Your task to perform on an android device: add a contact in the contacts app Image 0: 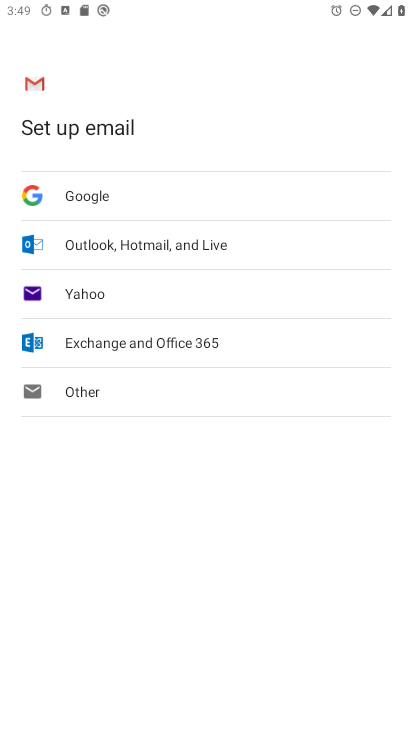
Step 0: press home button
Your task to perform on an android device: add a contact in the contacts app Image 1: 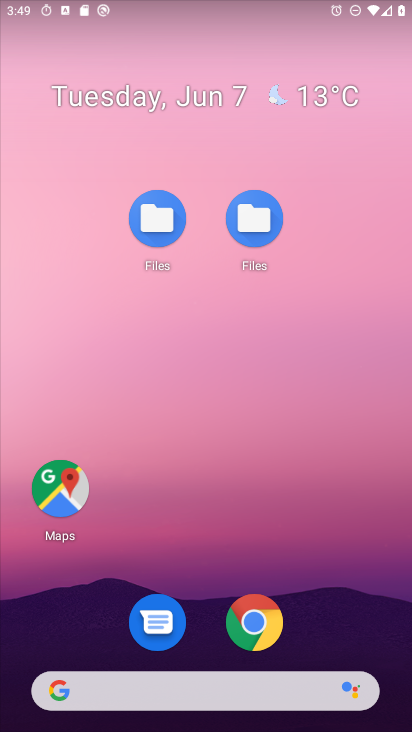
Step 1: drag from (367, 599) to (371, 419)
Your task to perform on an android device: add a contact in the contacts app Image 2: 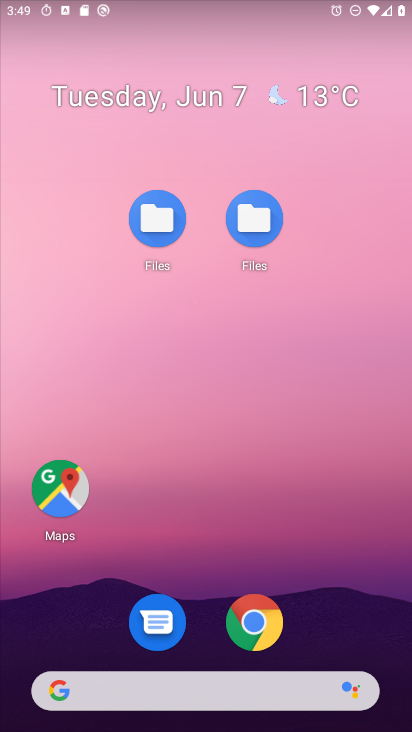
Step 2: drag from (362, 633) to (386, 115)
Your task to perform on an android device: add a contact in the contacts app Image 3: 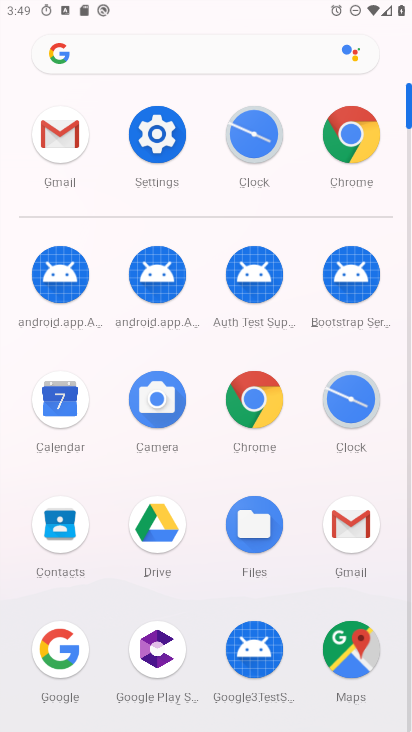
Step 3: click (49, 531)
Your task to perform on an android device: add a contact in the contacts app Image 4: 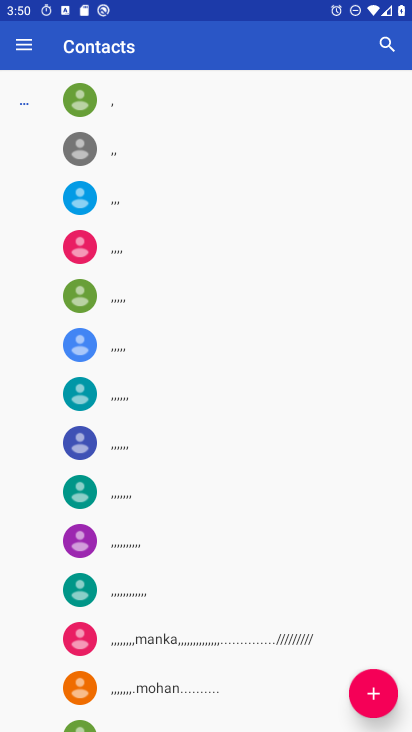
Step 4: click (379, 696)
Your task to perform on an android device: add a contact in the contacts app Image 5: 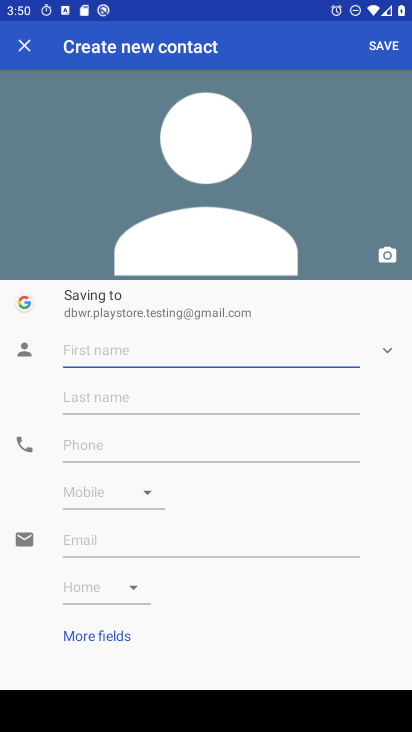
Step 5: type "99058299965"
Your task to perform on an android device: add a contact in the contacts app Image 6: 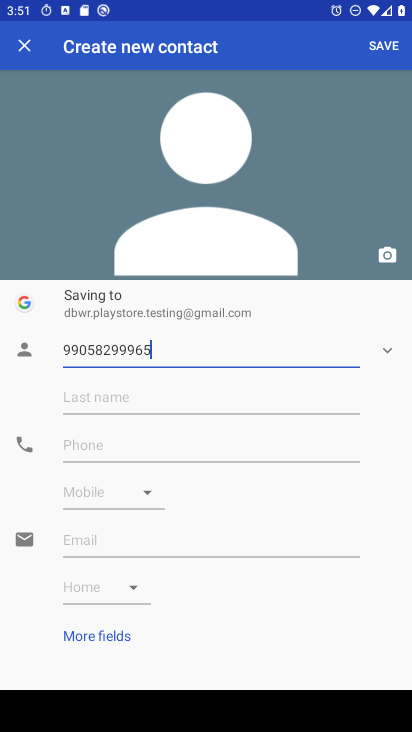
Step 6: click (210, 439)
Your task to perform on an android device: add a contact in the contacts app Image 7: 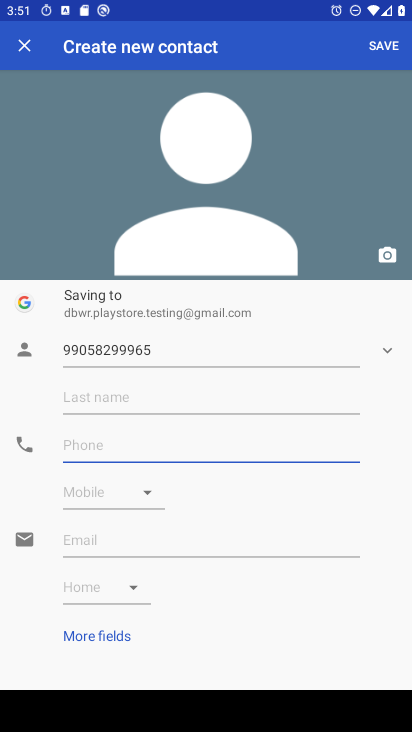
Step 7: type "90658834"
Your task to perform on an android device: add a contact in the contacts app Image 8: 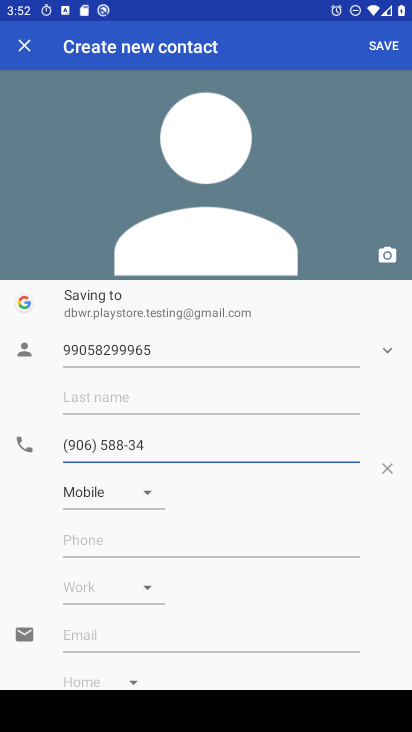
Step 8: click (383, 41)
Your task to perform on an android device: add a contact in the contacts app Image 9: 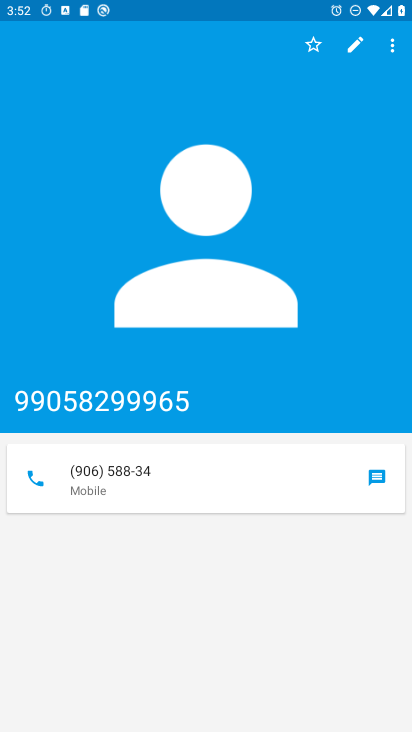
Step 9: task complete